Your task to perform on an android device: Open wifi settings Image 0: 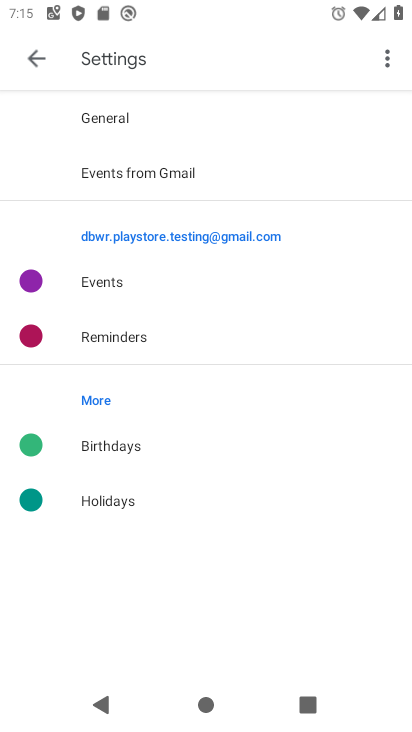
Step 0: press home button
Your task to perform on an android device: Open wifi settings Image 1: 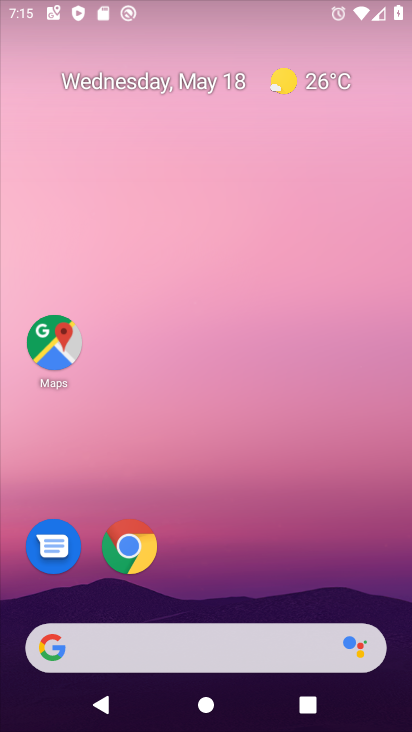
Step 1: drag from (379, 596) to (296, 95)
Your task to perform on an android device: Open wifi settings Image 2: 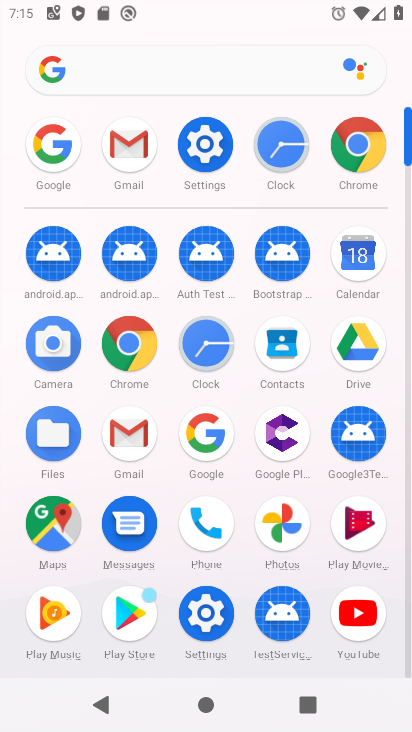
Step 2: click (217, 148)
Your task to perform on an android device: Open wifi settings Image 3: 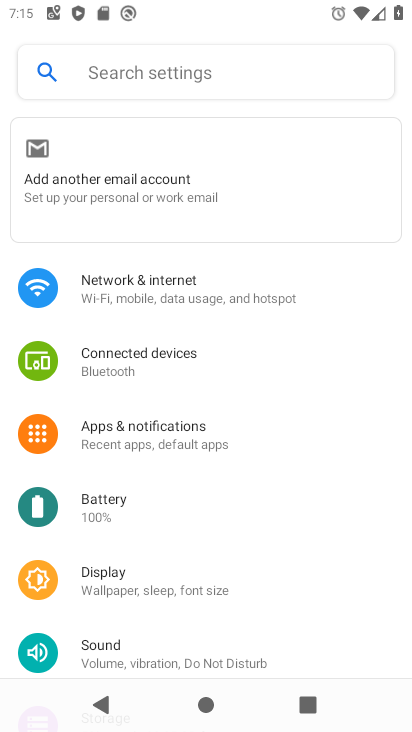
Step 3: click (134, 292)
Your task to perform on an android device: Open wifi settings Image 4: 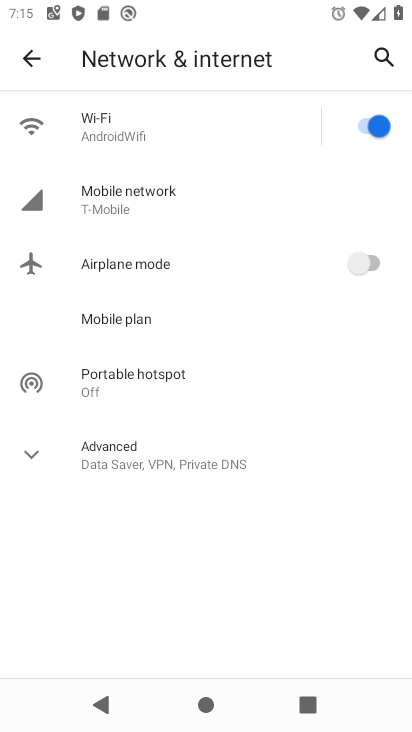
Step 4: click (170, 146)
Your task to perform on an android device: Open wifi settings Image 5: 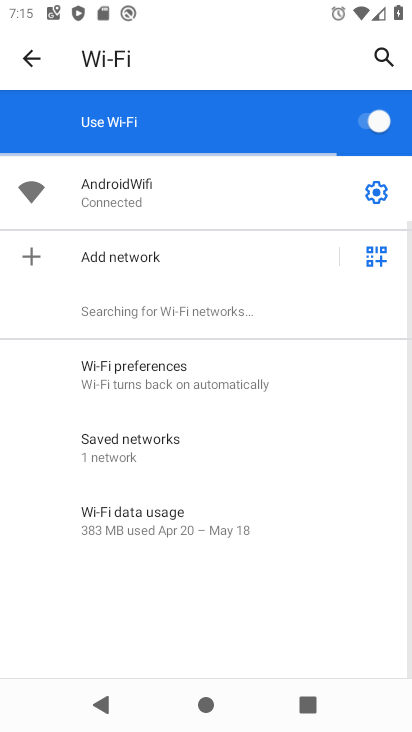
Step 5: task complete